Your task to perform on an android device: Go to battery settings Image 0: 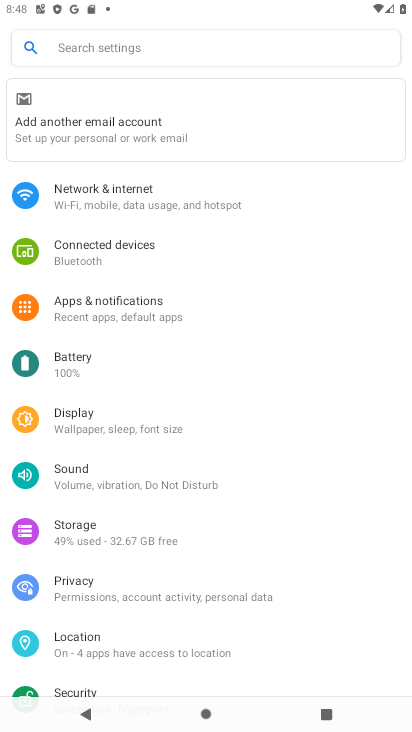
Step 0: click (70, 367)
Your task to perform on an android device: Go to battery settings Image 1: 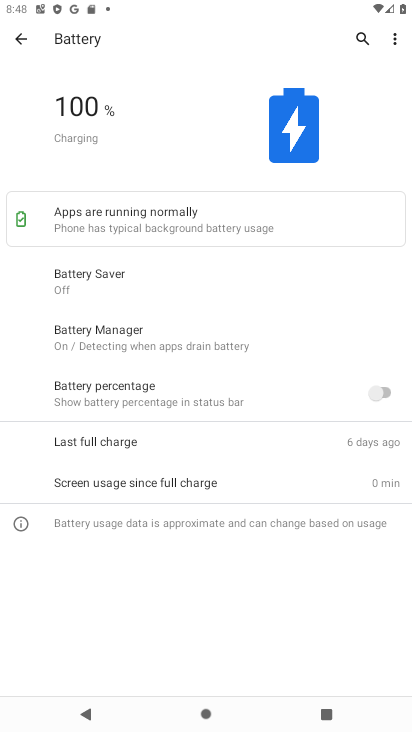
Step 1: task complete